Your task to perform on an android device: change text size in settings app Image 0: 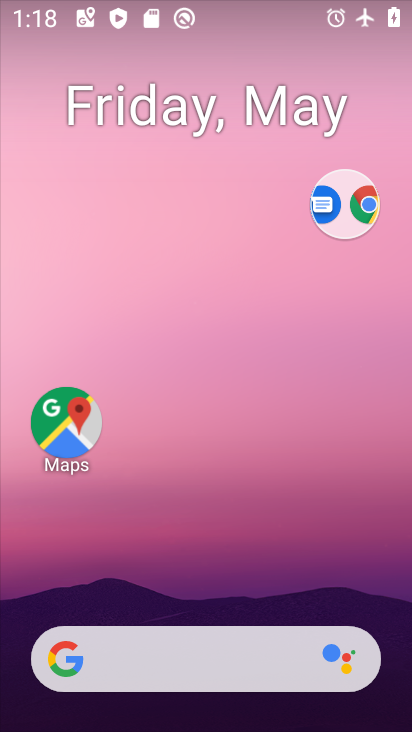
Step 0: drag from (214, 683) to (257, 176)
Your task to perform on an android device: change text size in settings app Image 1: 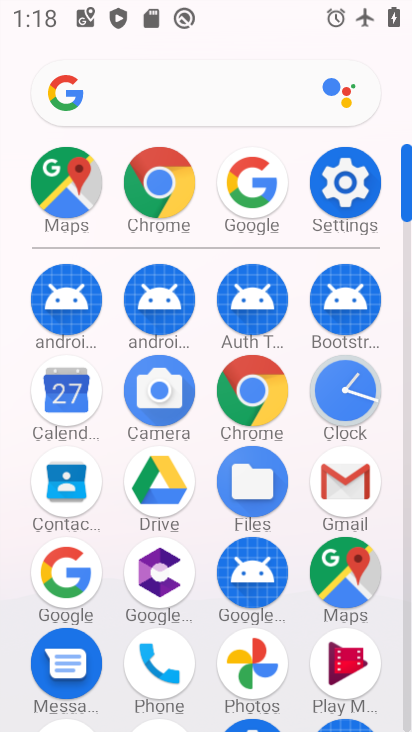
Step 1: click (352, 196)
Your task to perform on an android device: change text size in settings app Image 2: 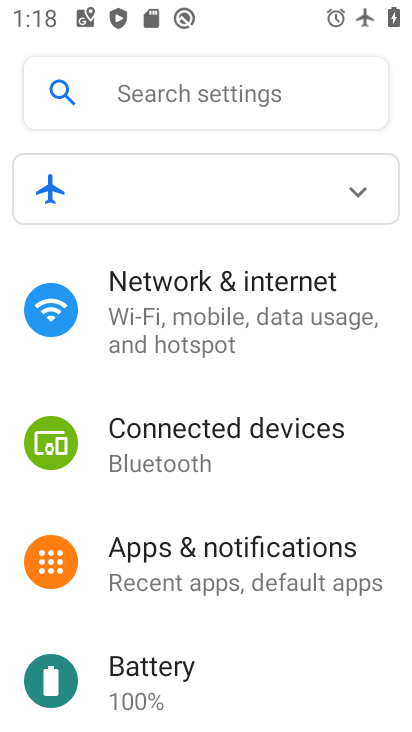
Step 2: drag from (218, 598) to (171, 238)
Your task to perform on an android device: change text size in settings app Image 3: 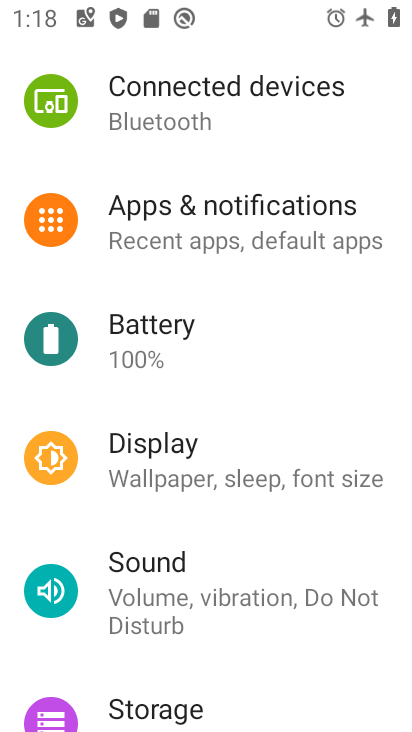
Step 3: click (165, 457)
Your task to perform on an android device: change text size in settings app Image 4: 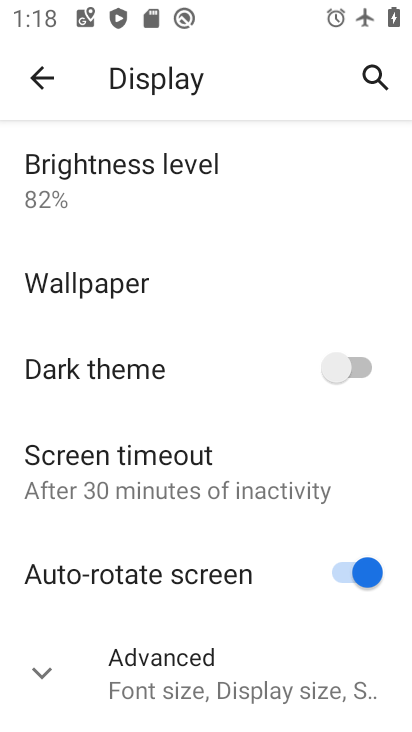
Step 4: click (143, 667)
Your task to perform on an android device: change text size in settings app Image 5: 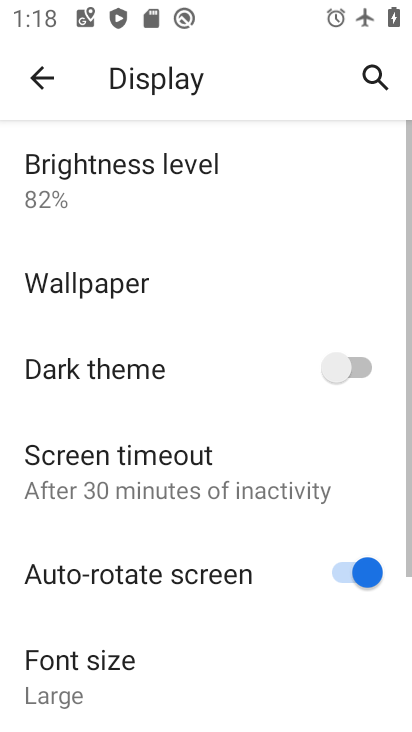
Step 5: click (126, 689)
Your task to perform on an android device: change text size in settings app Image 6: 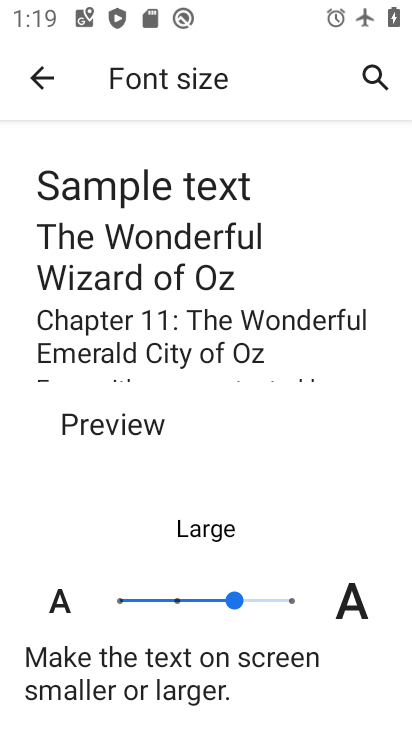
Step 6: click (202, 603)
Your task to perform on an android device: change text size in settings app Image 7: 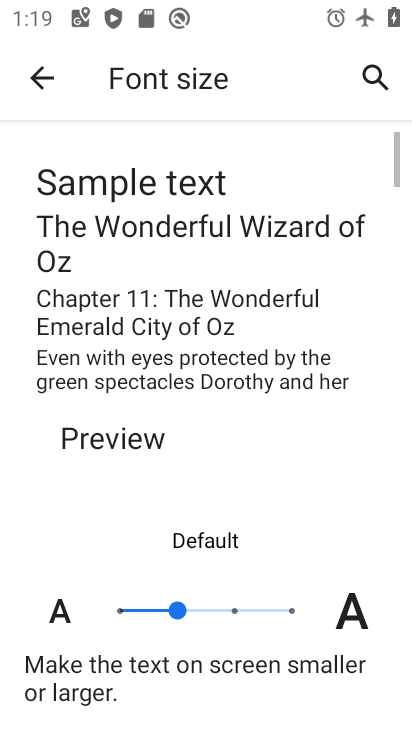
Step 7: task complete